Your task to perform on an android device: Do I have any events tomorrow? Image 0: 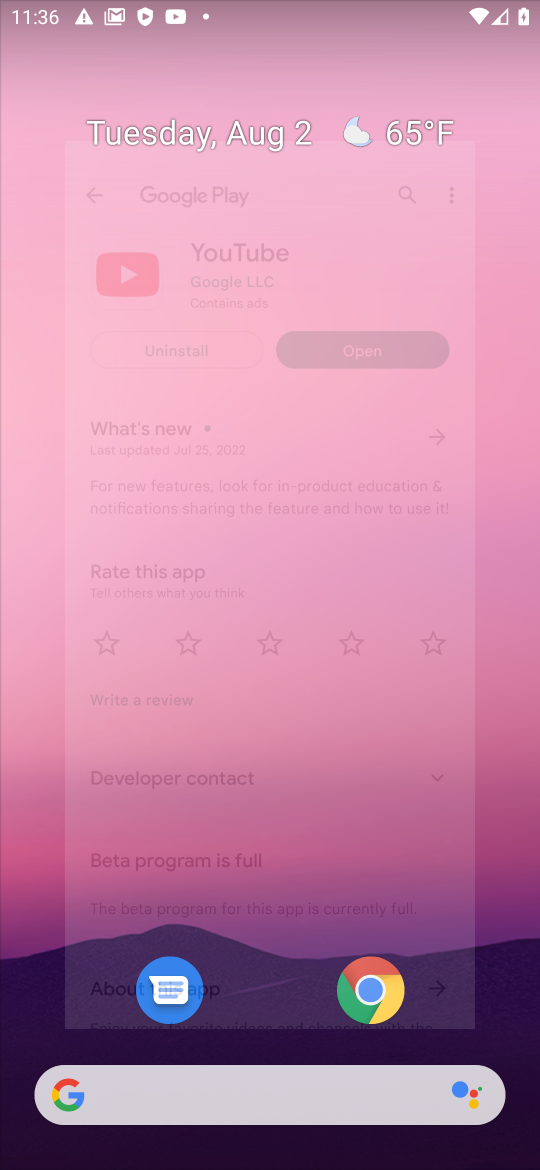
Step 0: press home button
Your task to perform on an android device: Do I have any events tomorrow? Image 1: 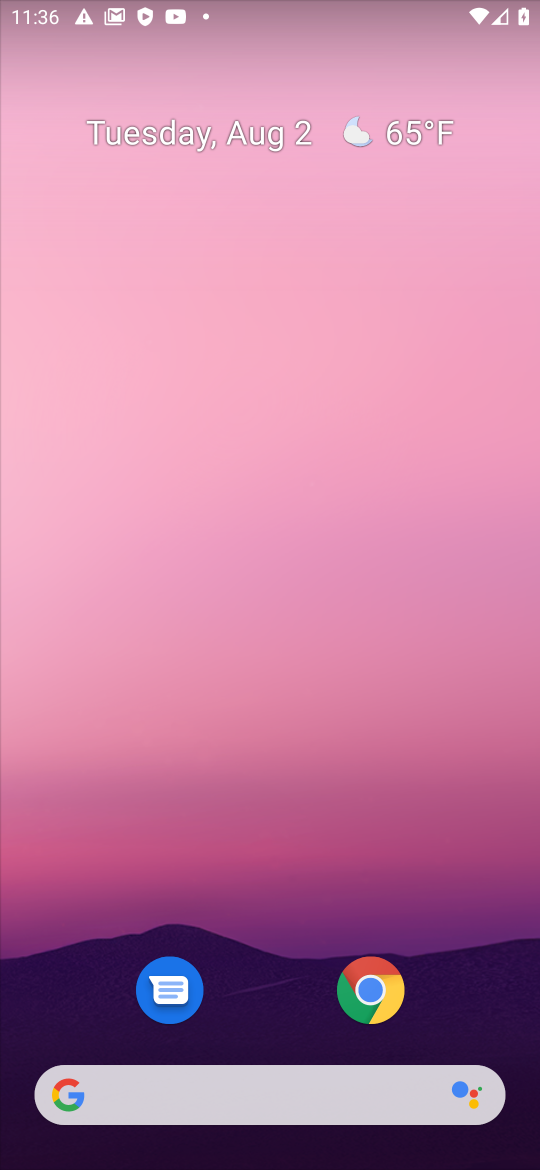
Step 1: drag from (271, 954) to (310, 313)
Your task to perform on an android device: Do I have any events tomorrow? Image 2: 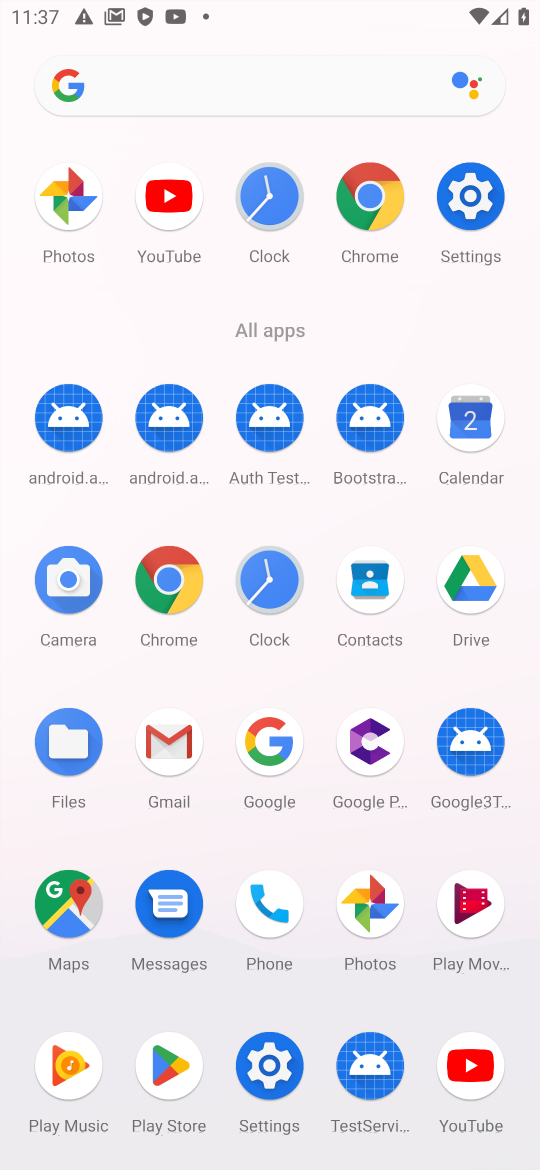
Step 2: click (475, 425)
Your task to perform on an android device: Do I have any events tomorrow? Image 3: 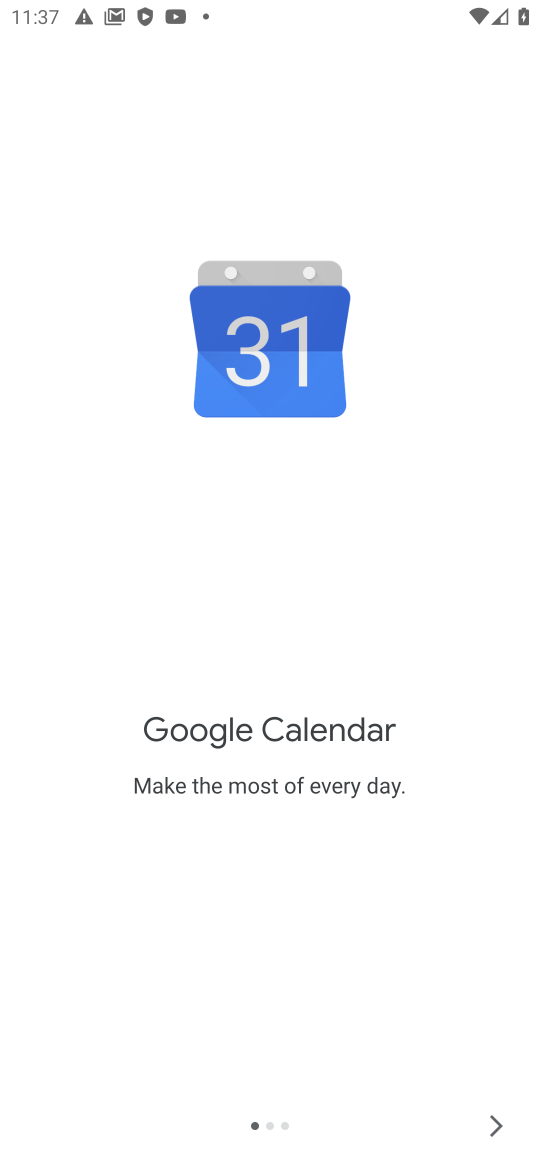
Step 3: click (498, 1134)
Your task to perform on an android device: Do I have any events tomorrow? Image 4: 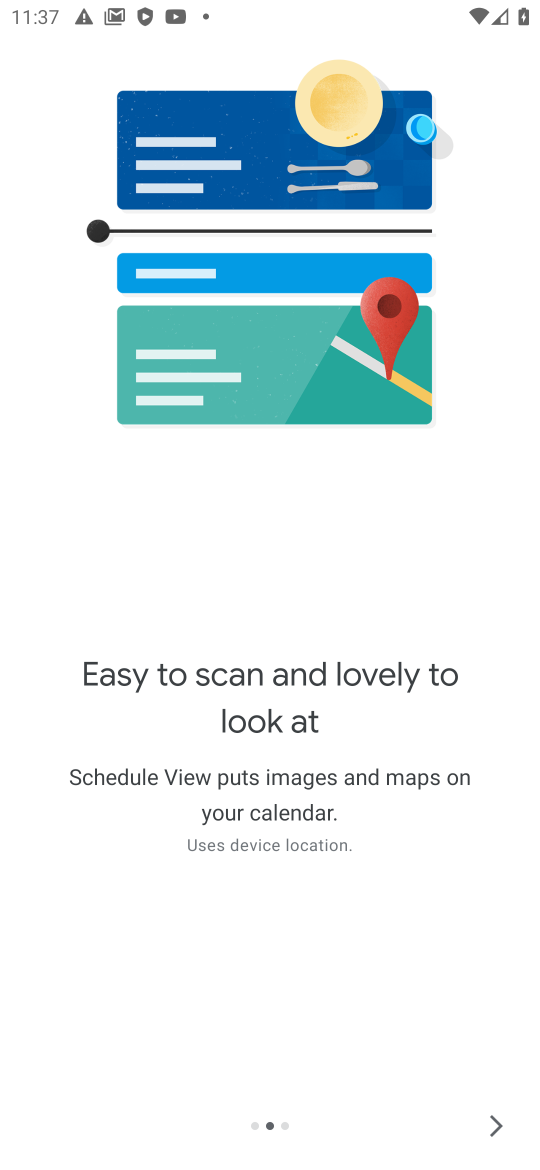
Step 4: click (498, 1122)
Your task to perform on an android device: Do I have any events tomorrow? Image 5: 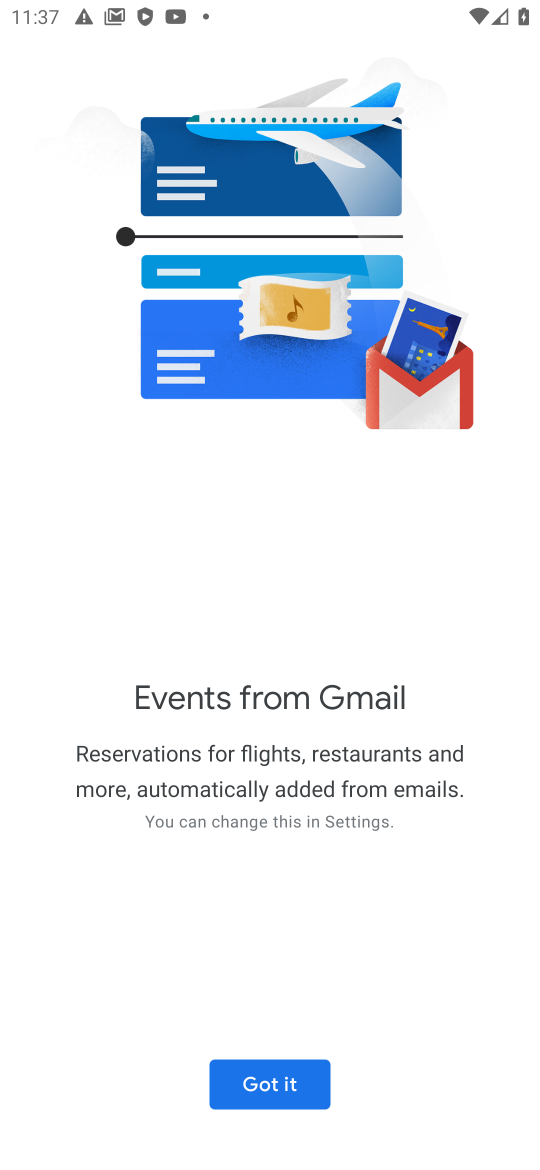
Step 5: click (289, 1083)
Your task to perform on an android device: Do I have any events tomorrow? Image 6: 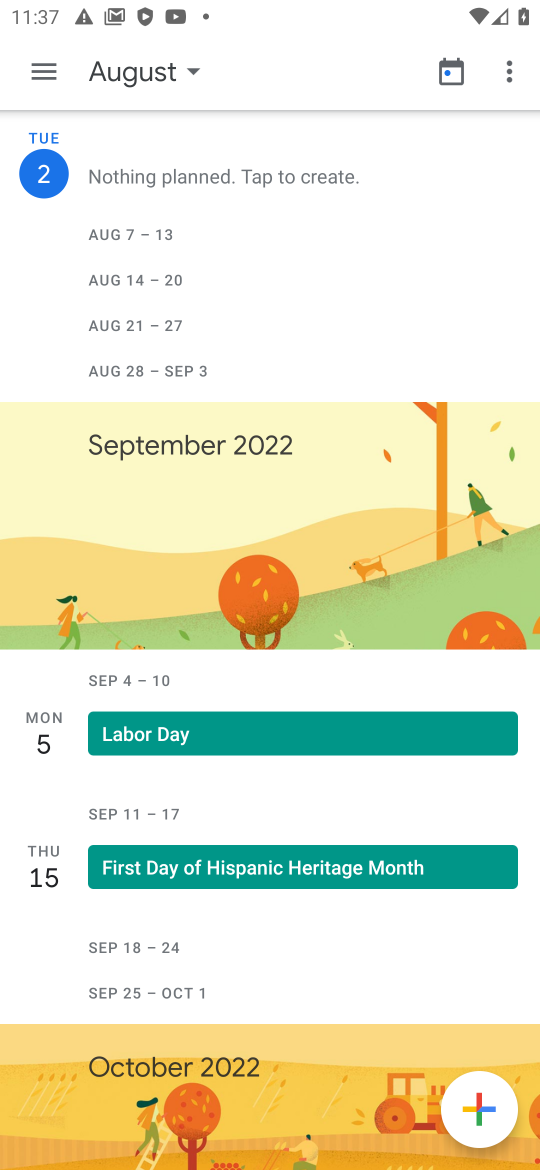
Step 6: click (37, 79)
Your task to perform on an android device: Do I have any events tomorrow? Image 7: 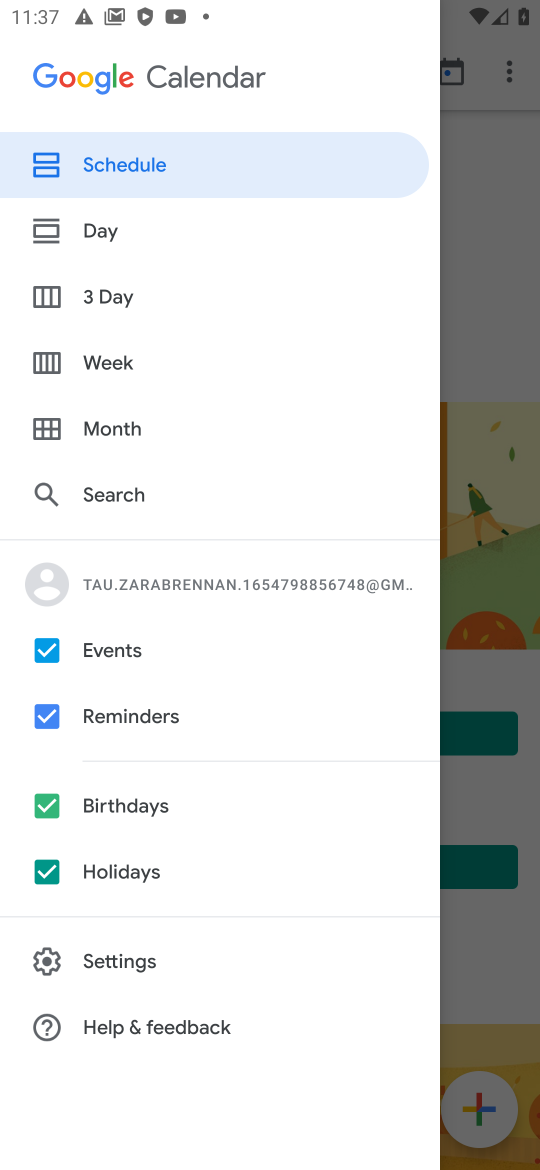
Step 7: click (128, 888)
Your task to perform on an android device: Do I have any events tomorrow? Image 8: 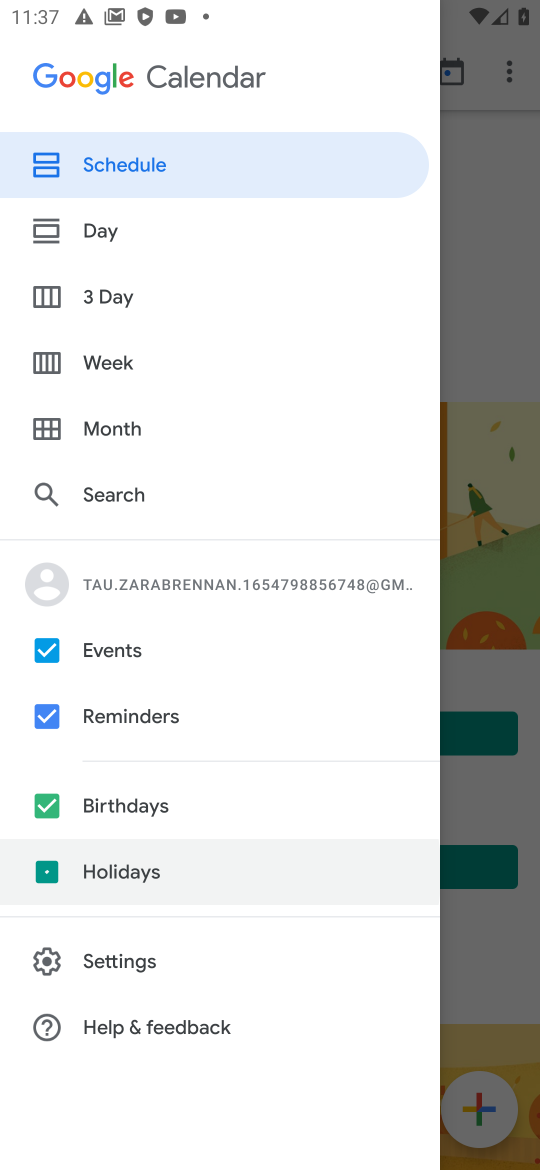
Step 8: click (116, 799)
Your task to perform on an android device: Do I have any events tomorrow? Image 9: 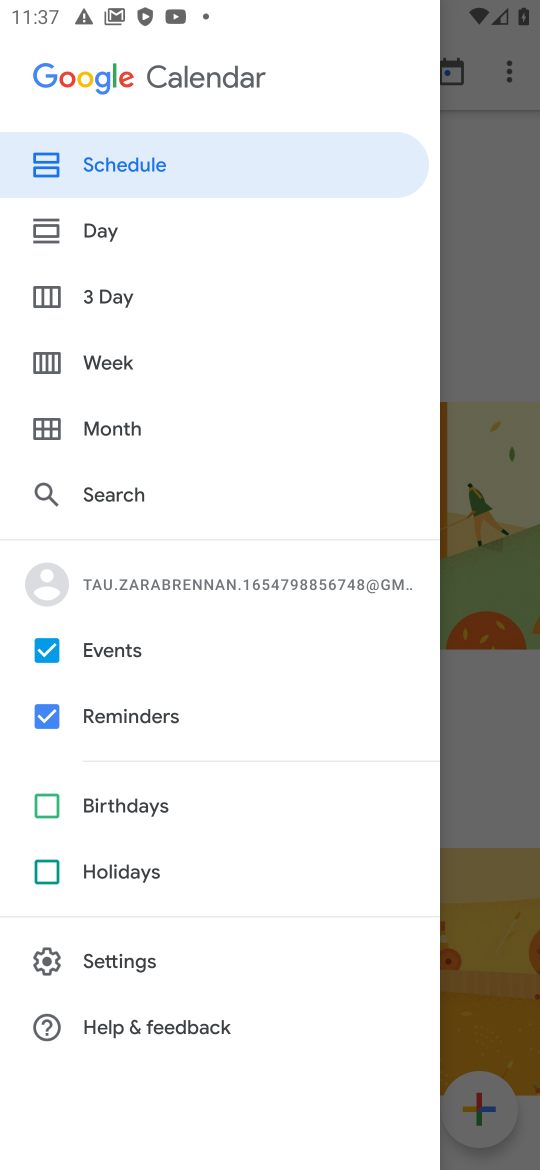
Step 9: click (125, 719)
Your task to perform on an android device: Do I have any events tomorrow? Image 10: 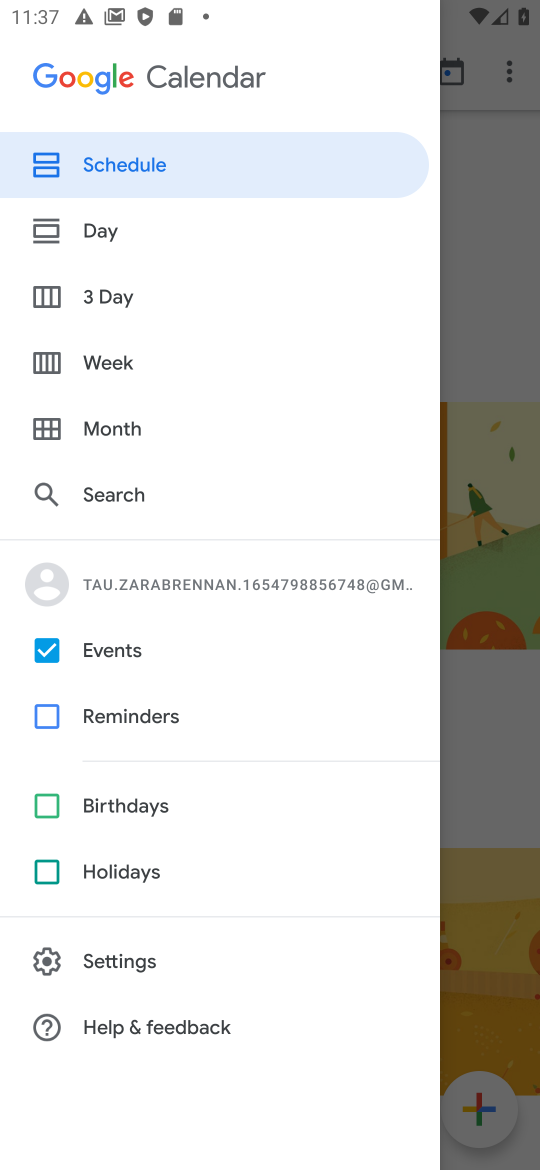
Step 10: click (111, 240)
Your task to perform on an android device: Do I have any events tomorrow? Image 11: 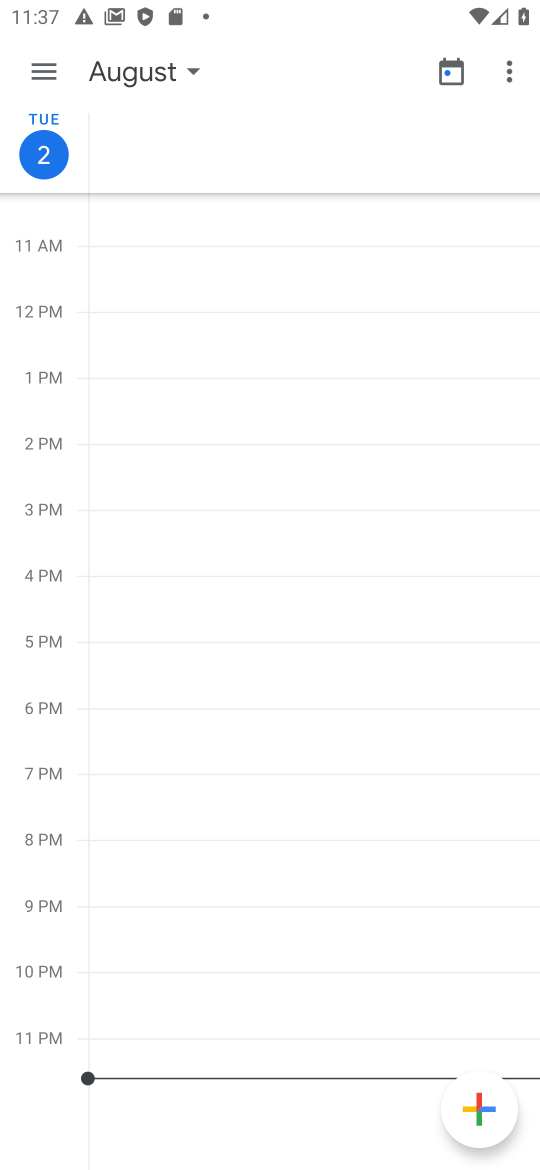
Step 11: task complete